Your task to perform on an android device: Open sound settings Image 0: 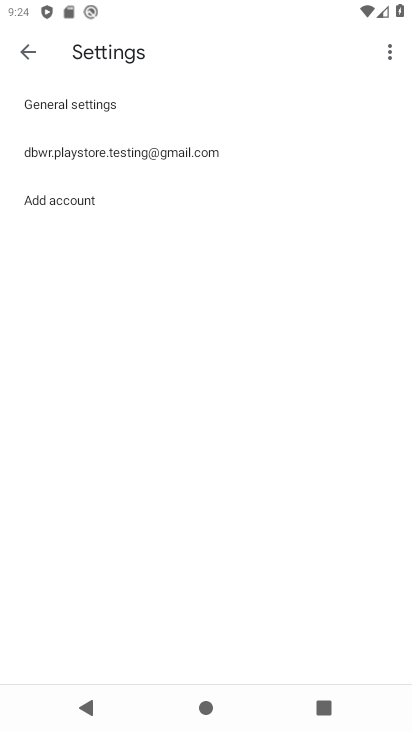
Step 0: press home button
Your task to perform on an android device: Open sound settings Image 1: 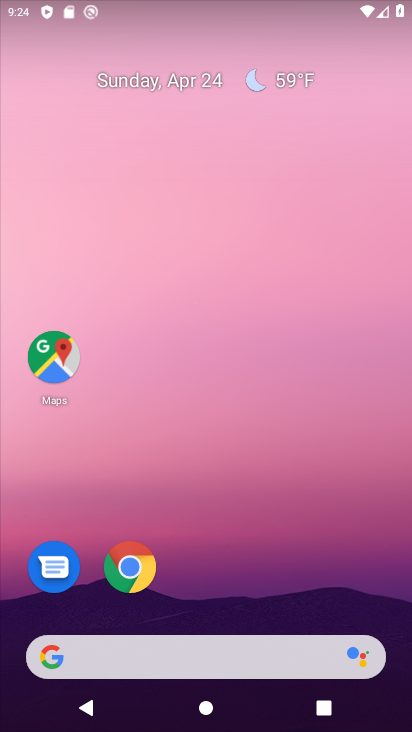
Step 1: drag from (373, 210) to (357, 125)
Your task to perform on an android device: Open sound settings Image 2: 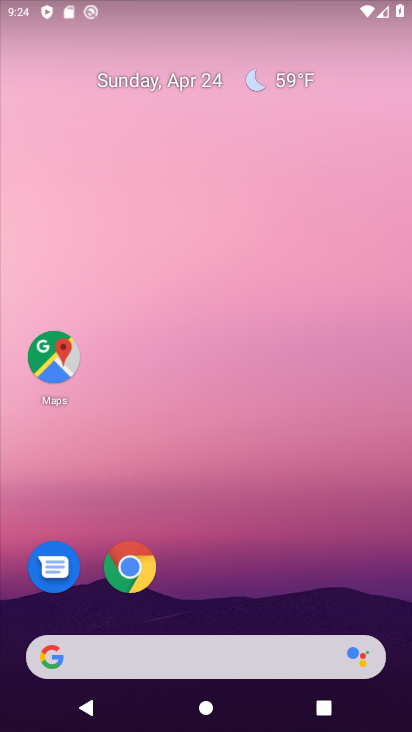
Step 2: drag from (390, 546) to (369, 143)
Your task to perform on an android device: Open sound settings Image 3: 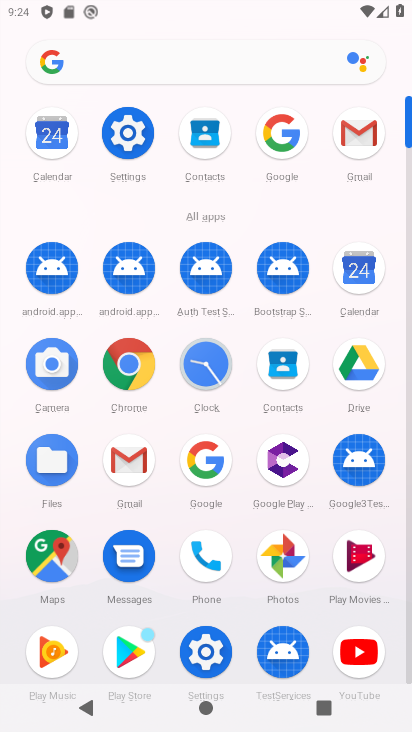
Step 3: click (333, 143)
Your task to perform on an android device: Open sound settings Image 4: 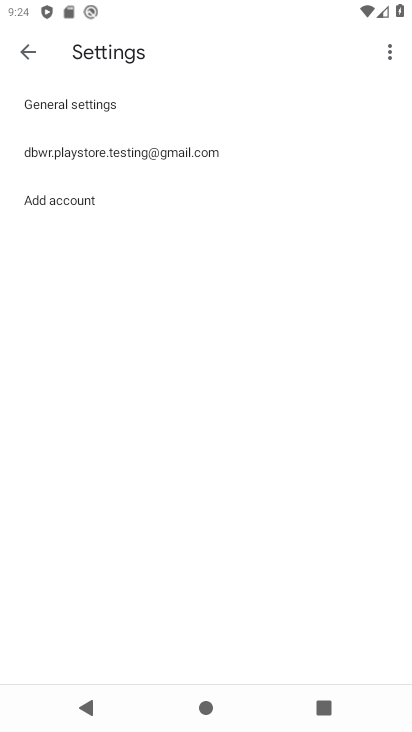
Step 4: click (123, 127)
Your task to perform on an android device: Open sound settings Image 5: 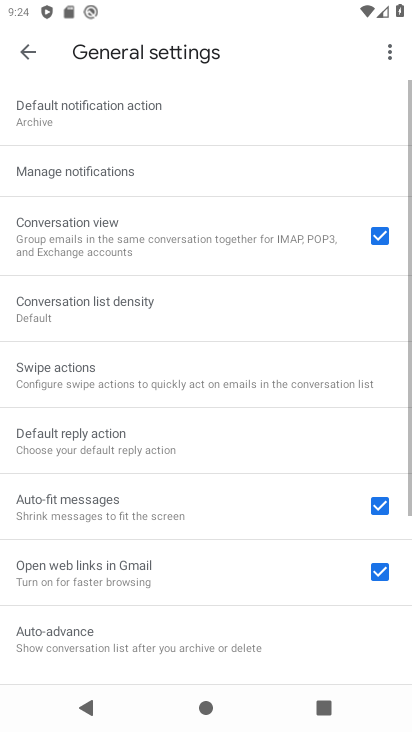
Step 5: click (22, 54)
Your task to perform on an android device: Open sound settings Image 6: 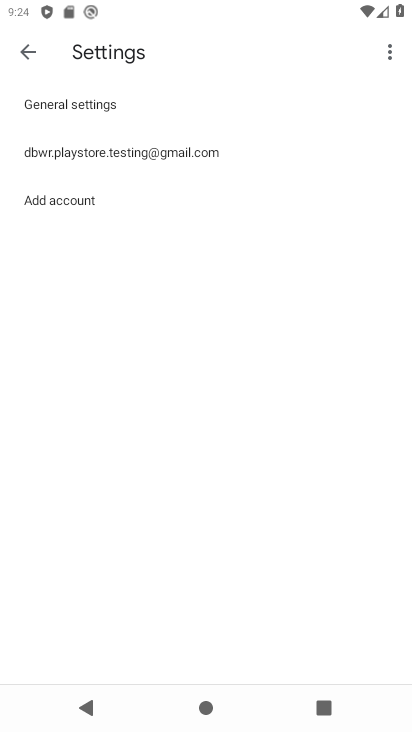
Step 6: click (22, 55)
Your task to perform on an android device: Open sound settings Image 7: 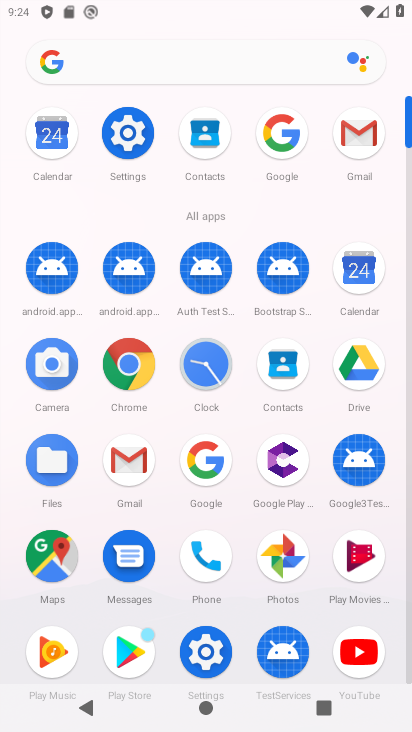
Step 7: click (122, 130)
Your task to perform on an android device: Open sound settings Image 8: 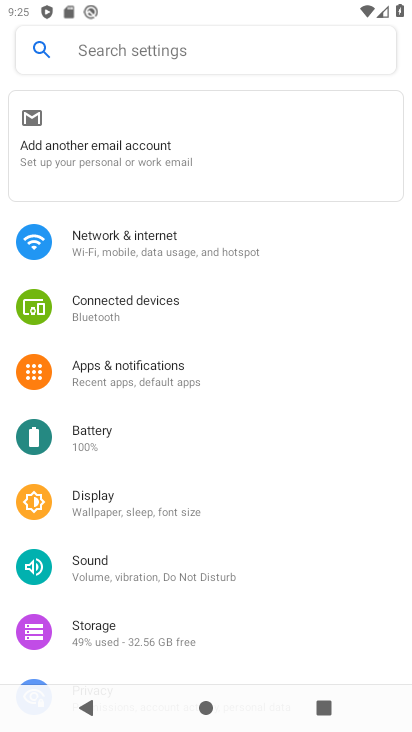
Step 8: click (82, 573)
Your task to perform on an android device: Open sound settings Image 9: 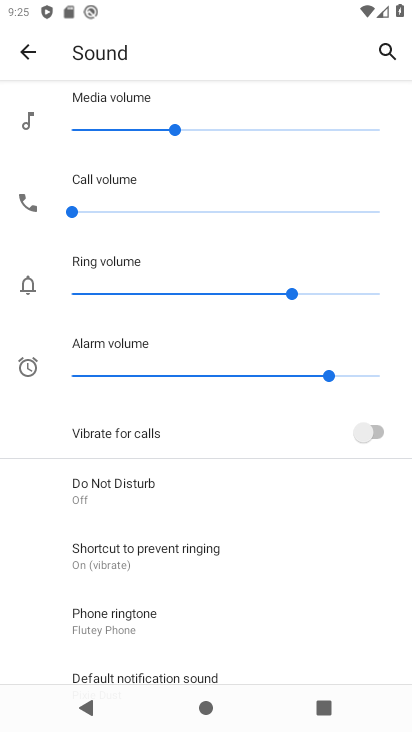
Step 9: task complete